Your task to perform on an android device: turn on bluetooth scan Image 0: 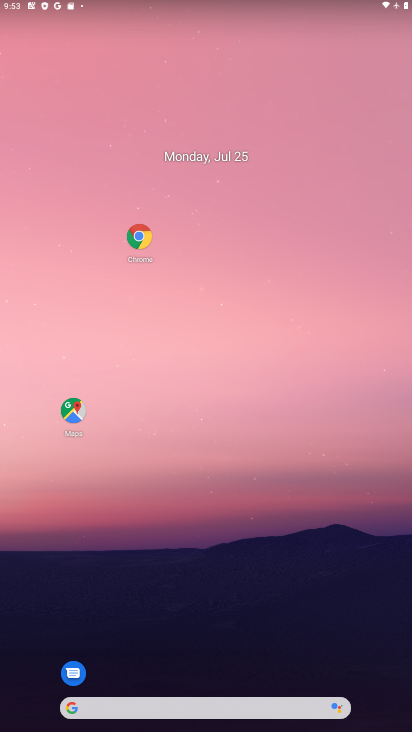
Step 0: drag from (281, 648) to (291, 217)
Your task to perform on an android device: turn on bluetooth scan Image 1: 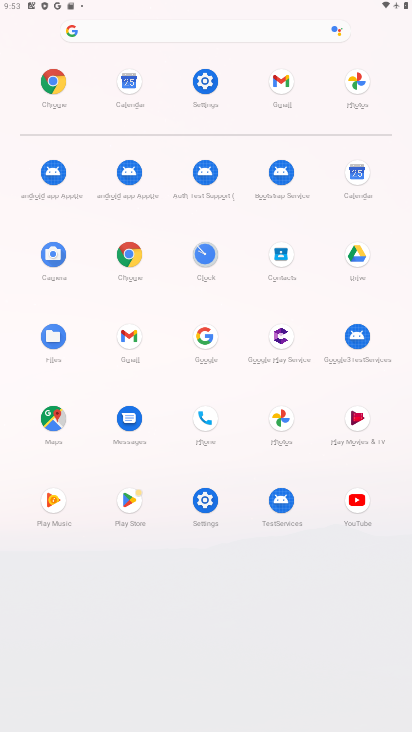
Step 1: task complete